Your task to perform on an android device: Clear the cart on walmart. Add bose soundsport free to the cart on walmart, then select checkout. Image 0: 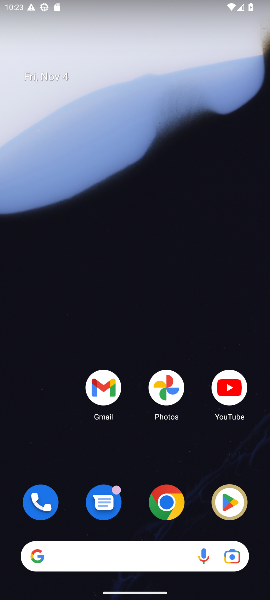
Step 0: drag from (155, 375) to (154, 10)
Your task to perform on an android device: Clear the cart on walmart. Add bose soundsport free to the cart on walmart, then select checkout. Image 1: 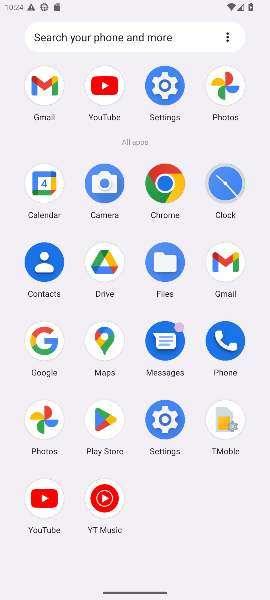
Step 1: click (166, 183)
Your task to perform on an android device: Clear the cart on walmart. Add bose soundsport free to the cart on walmart, then select checkout. Image 2: 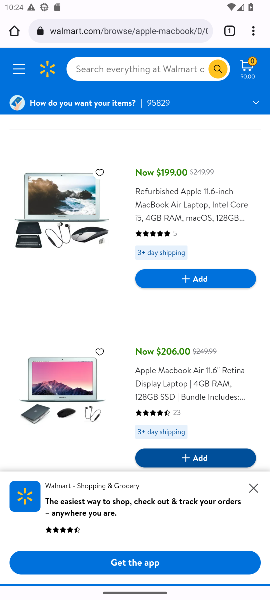
Step 2: click (256, 63)
Your task to perform on an android device: Clear the cart on walmart. Add bose soundsport free to the cart on walmart, then select checkout. Image 3: 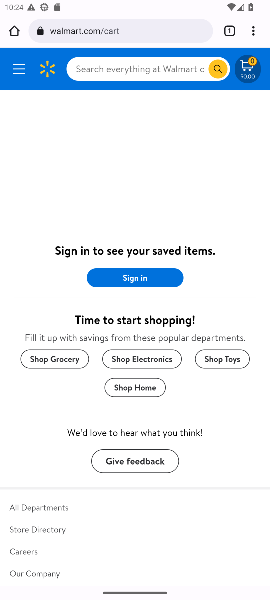
Step 3: click (175, 67)
Your task to perform on an android device: Clear the cart on walmart. Add bose soundsport free to the cart on walmart, then select checkout. Image 4: 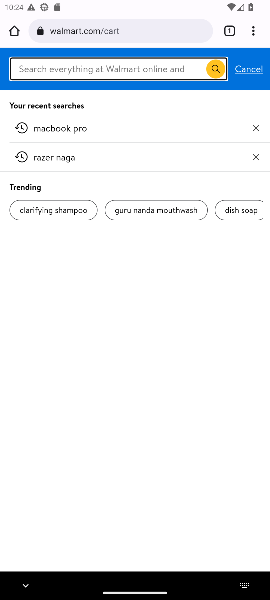
Step 4: type "bose soundsport free"
Your task to perform on an android device: Clear the cart on walmart. Add bose soundsport free to the cart on walmart, then select checkout. Image 5: 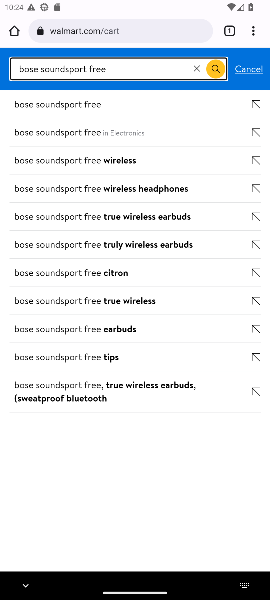
Step 5: press enter
Your task to perform on an android device: Clear the cart on walmart. Add bose soundsport free to the cart on walmart, then select checkout. Image 6: 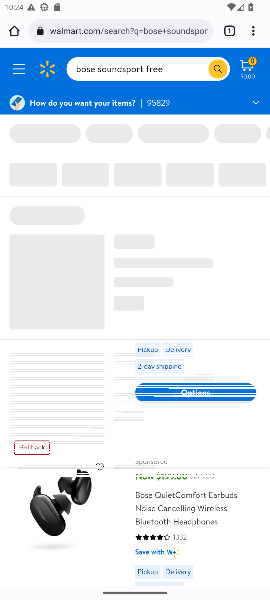
Step 6: task complete